Your task to perform on an android device: make emails show in primary in the gmail app Image 0: 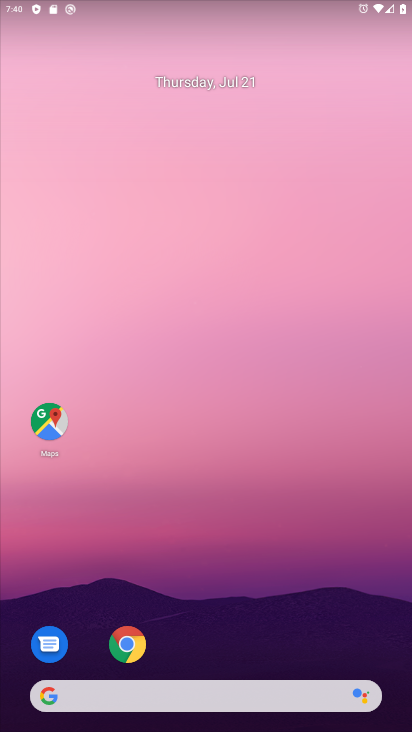
Step 0: drag from (325, 584) to (374, 167)
Your task to perform on an android device: make emails show in primary in the gmail app Image 1: 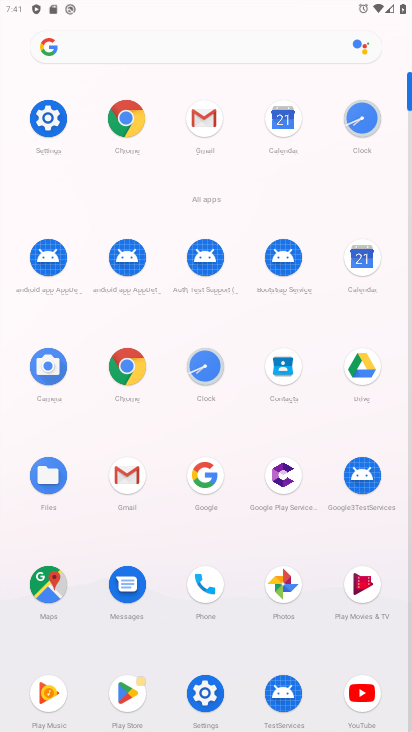
Step 1: click (131, 476)
Your task to perform on an android device: make emails show in primary in the gmail app Image 2: 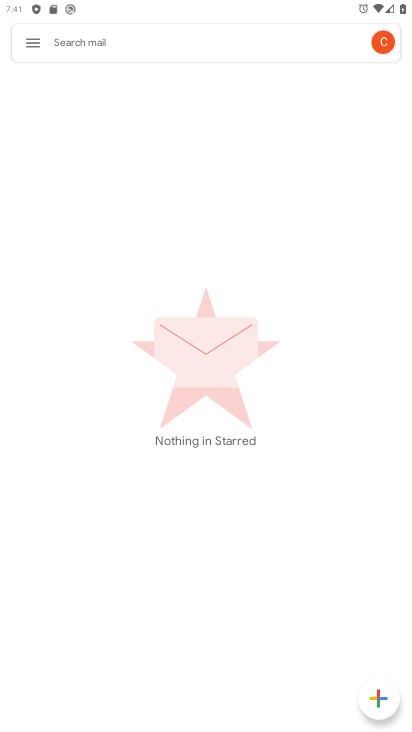
Step 2: click (33, 44)
Your task to perform on an android device: make emails show in primary in the gmail app Image 3: 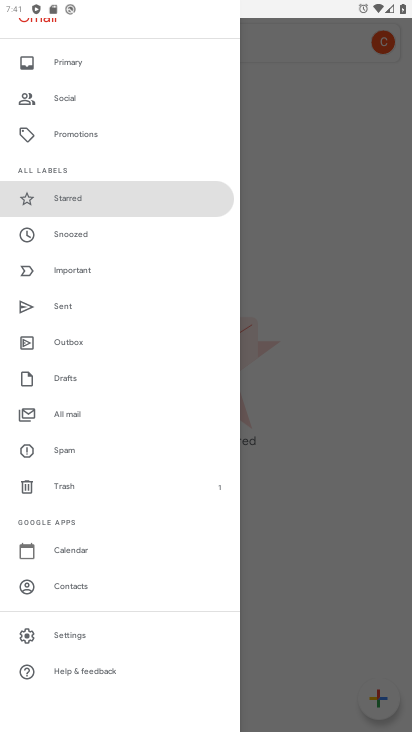
Step 3: click (88, 635)
Your task to perform on an android device: make emails show in primary in the gmail app Image 4: 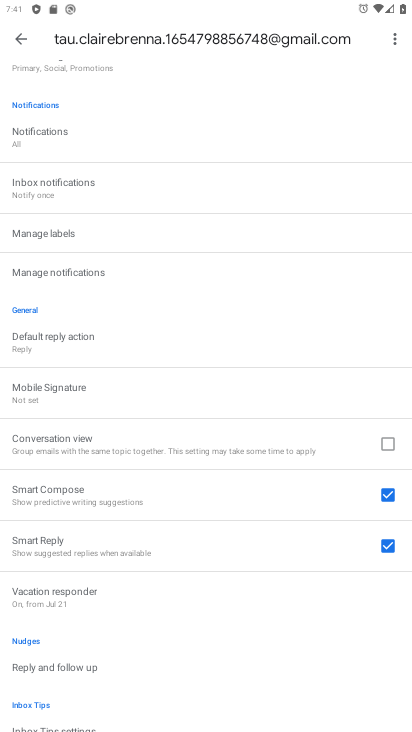
Step 4: drag from (224, 316) to (228, 382)
Your task to perform on an android device: make emails show in primary in the gmail app Image 5: 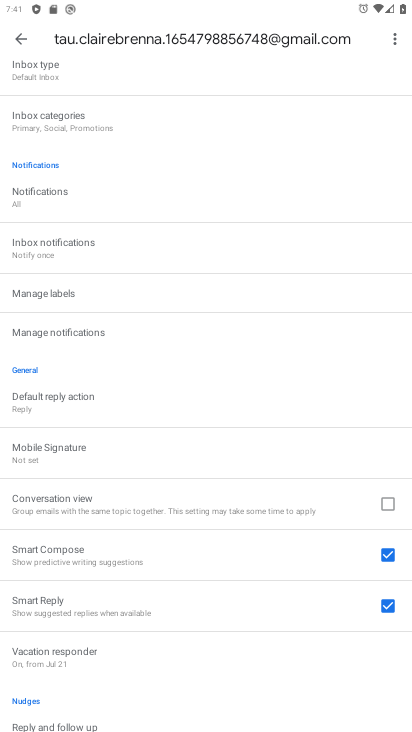
Step 5: drag from (248, 280) to (266, 382)
Your task to perform on an android device: make emails show in primary in the gmail app Image 6: 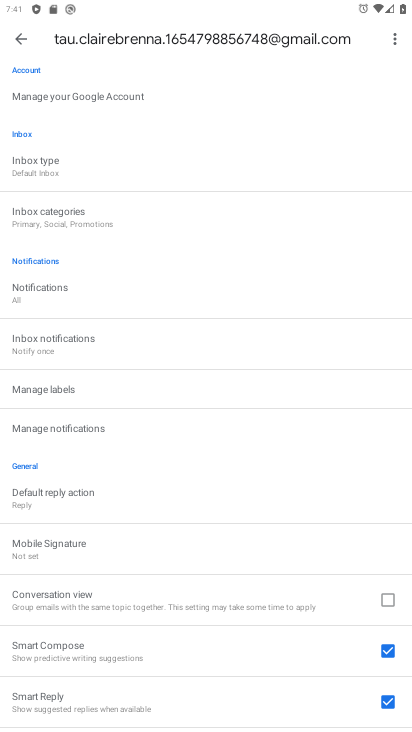
Step 6: drag from (199, 269) to (206, 356)
Your task to perform on an android device: make emails show in primary in the gmail app Image 7: 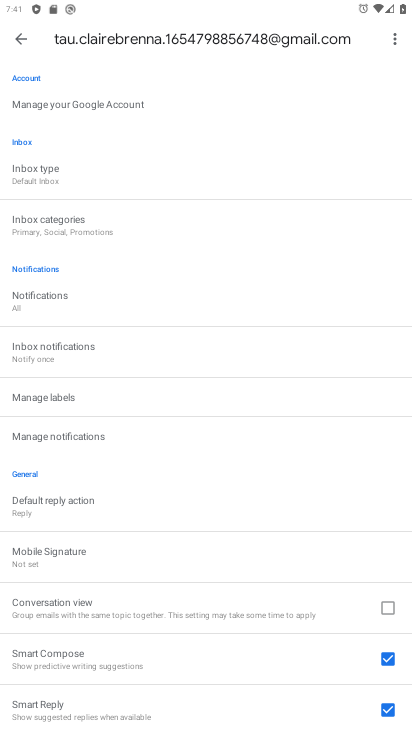
Step 7: click (148, 244)
Your task to perform on an android device: make emails show in primary in the gmail app Image 8: 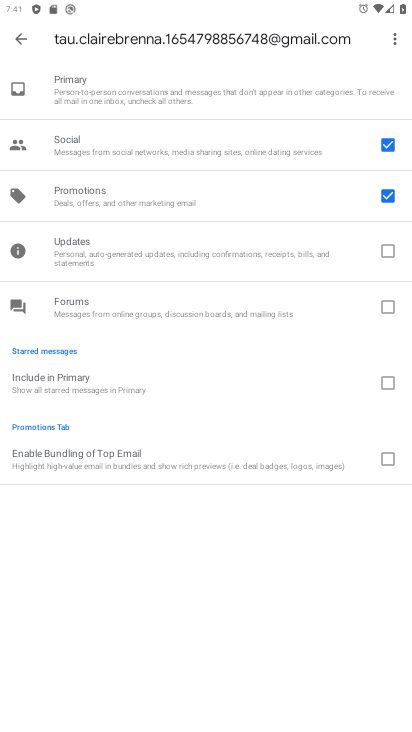
Step 8: click (394, 195)
Your task to perform on an android device: make emails show in primary in the gmail app Image 9: 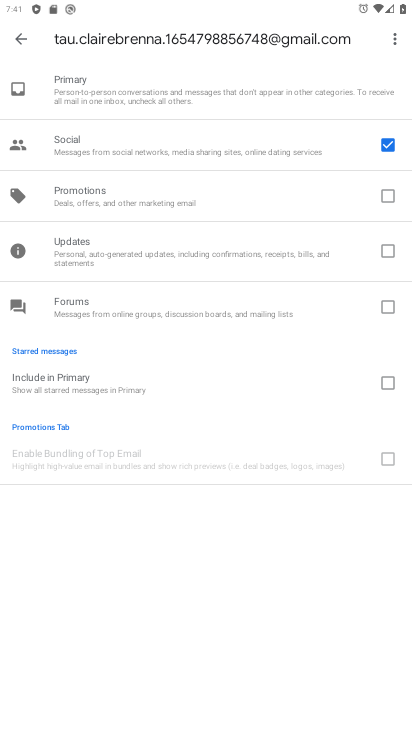
Step 9: click (392, 144)
Your task to perform on an android device: make emails show in primary in the gmail app Image 10: 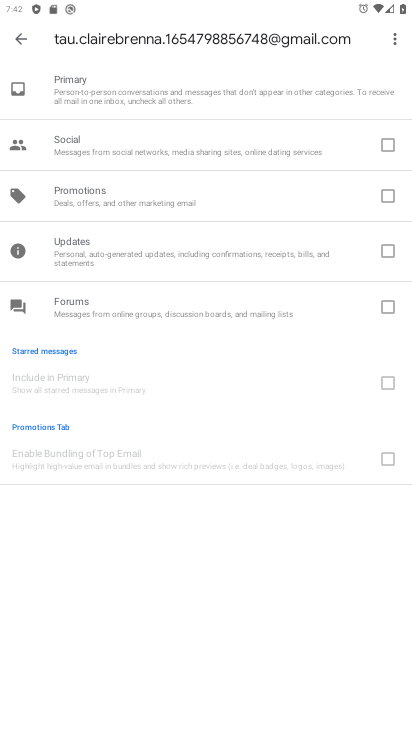
Step 10: task complete